Your task to perform on an android device: Go to Amazon Image 0: 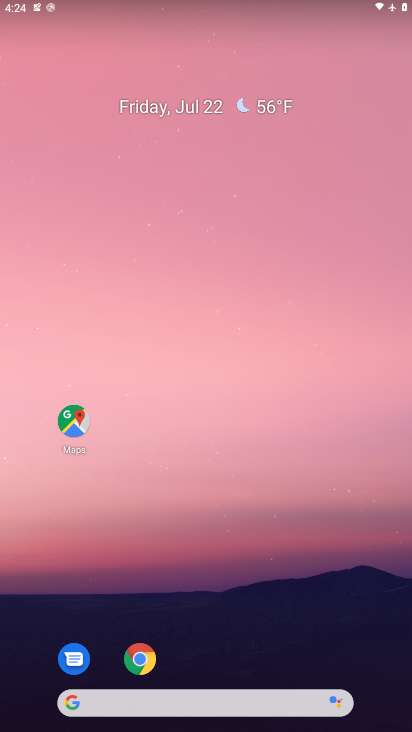
Step 0: drag from (193, 693) to (249, 131)
Your task to perform on an android device: Go to Amazon Image 1: 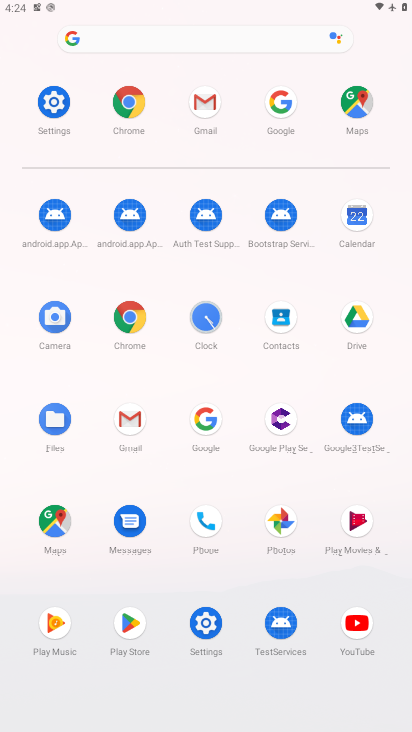
Step 1: click (202, 424)
Your task to perform on an android device: Go to Amazon Image 2: 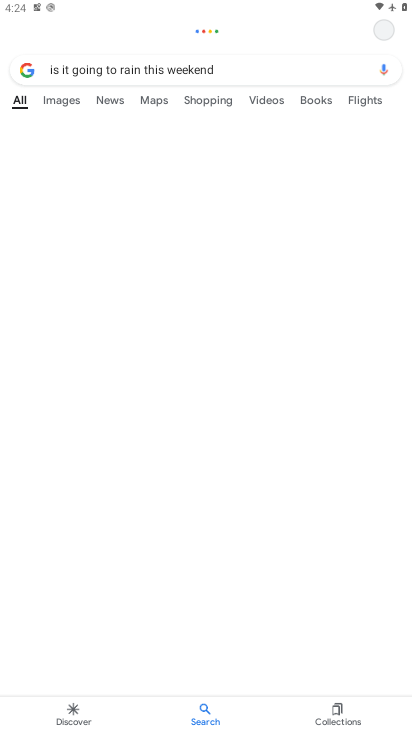
Step 2: click (330, 30)
Your task to perform on an android device: Go to Amazon Image 3: 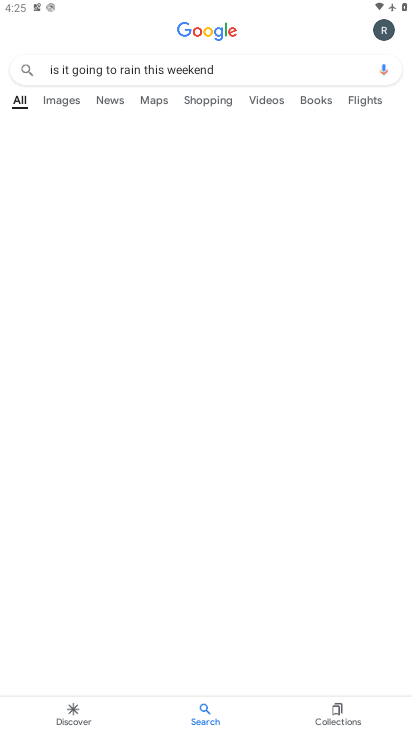
Step 3: click (320, 77)
Your task to perform on an android device: Go to Amazon Image 4: 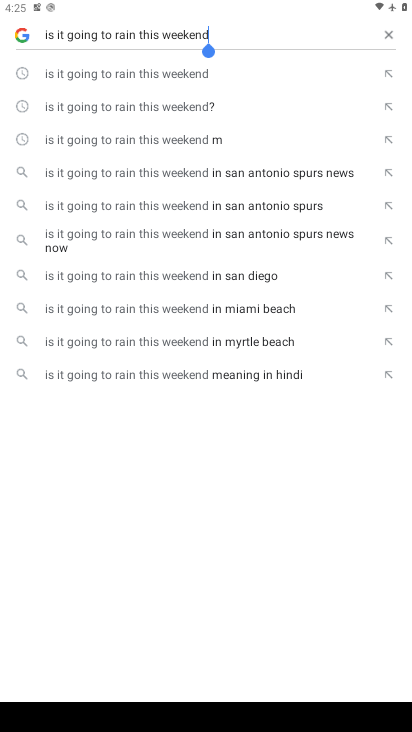
Step 4: click (382, 33)
Your task to perform on an android device: Go to Amazon Image 5: 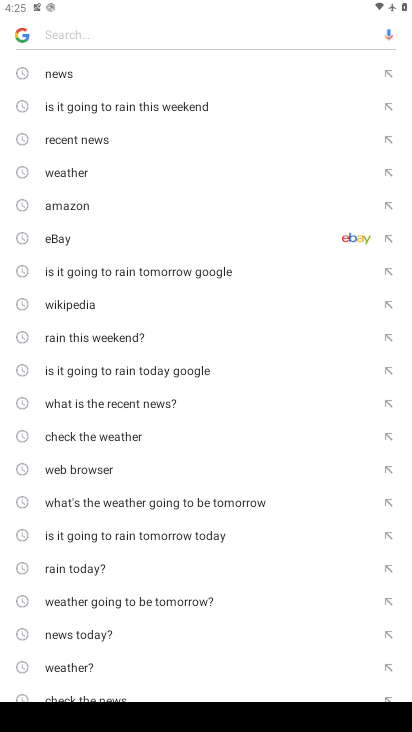
Step 5: drag from (80, 661) to (135, 197)
Your task to perform on an android device: Go to Amazon Image 6: 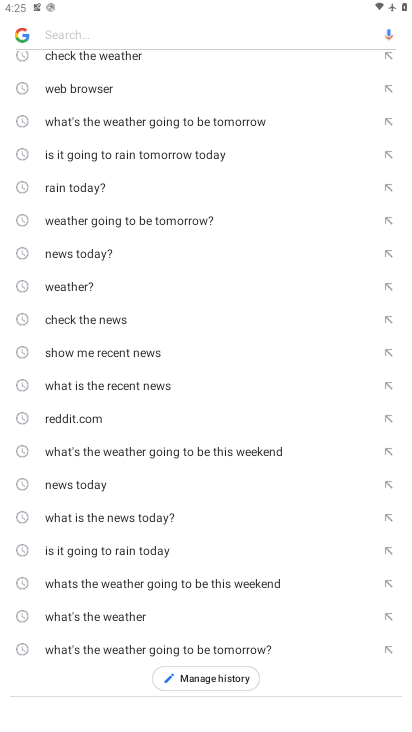
Step 6: drag from (151, 78) to (138, 506)
Your task to perform on an android device: Go to Amazon Image 7: 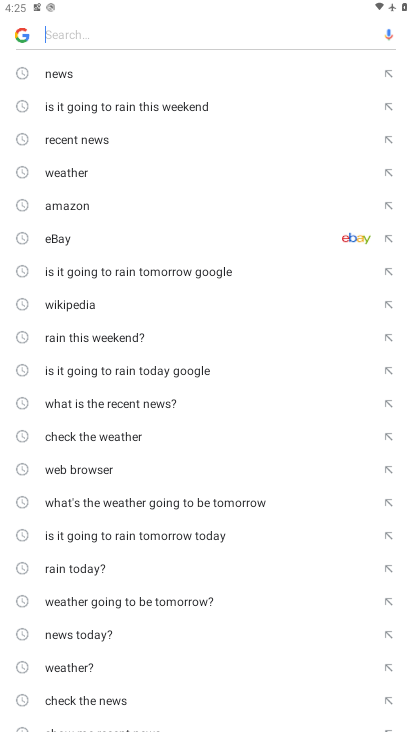
Step 7: click (97, 206)
Your task to perform on an android device: Go to Amazon Image 8: 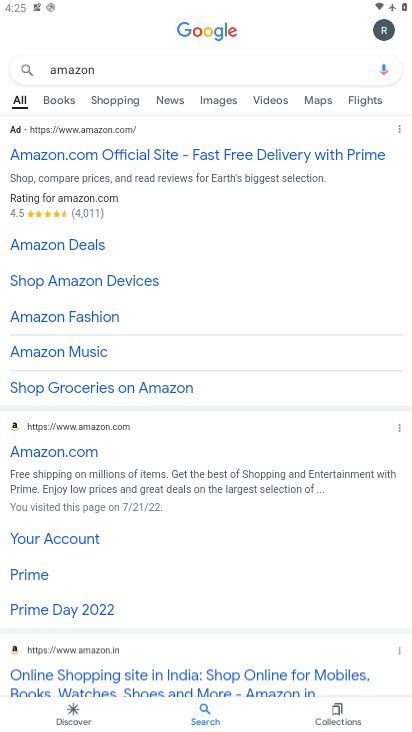
Step 8: click (125, 160)
Your task to perform on an android device: Go to Amazon Image 9: 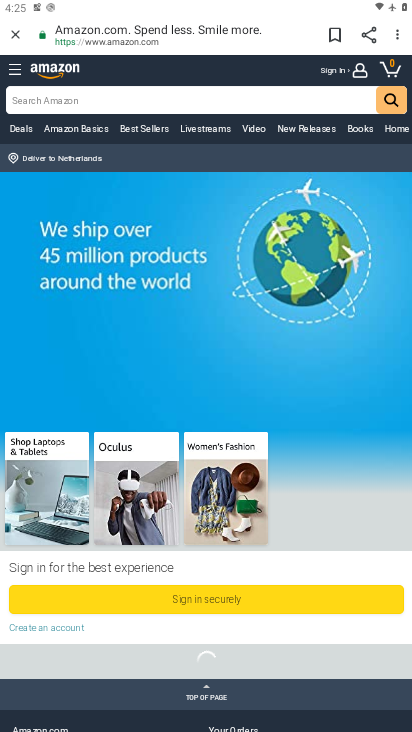
Step 9: task complete